Your task to perform on an android device: turn on improve location accuracy Image 0: 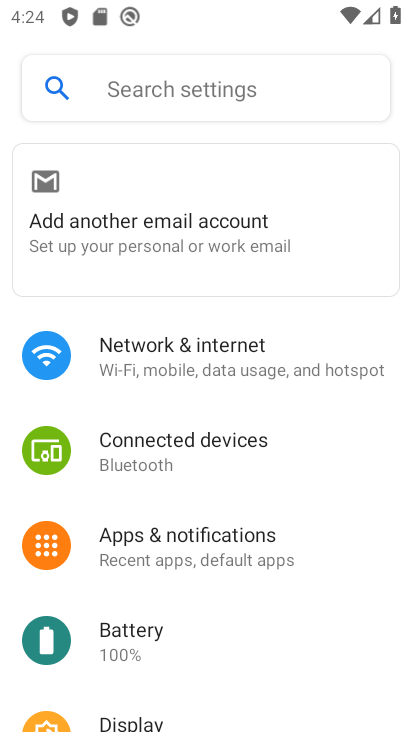
Step 0: drag from (296, 475) to (271, 148)
Your task to perform on an android device: turn on improve location accuracy Image 1: 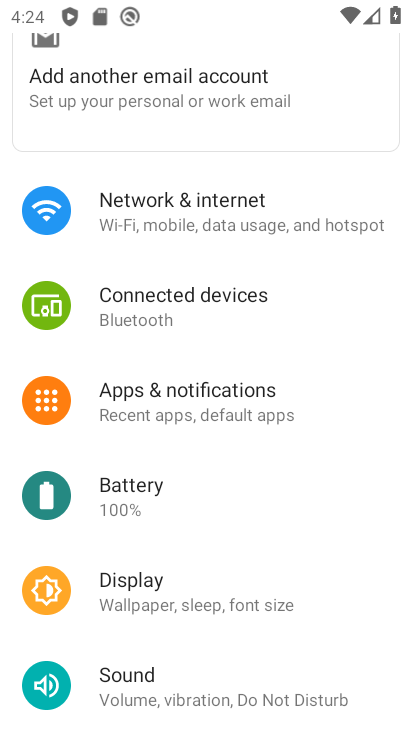
Step 1: drag from (287, 448) to (330, 167)
Your task to perform on an android device: turn on improve location accuracy Image 2: 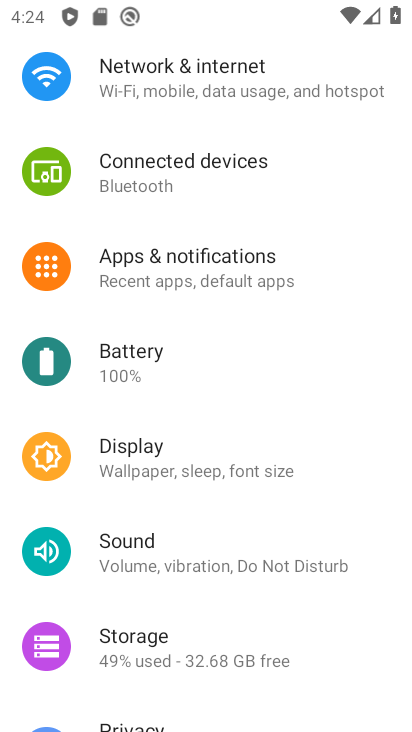
Step 2: drag from (237, 593) to (307, 284)
Your task to perform on an android device: turn on improve location accuracy Image 3: 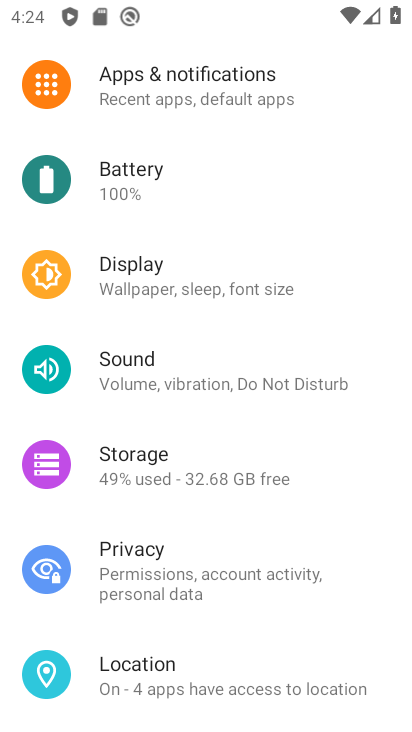
Step 3: drag from (260, 491) to (280, 262)
Your task to perform on an android device: turn on improve location accuracy Image 4: 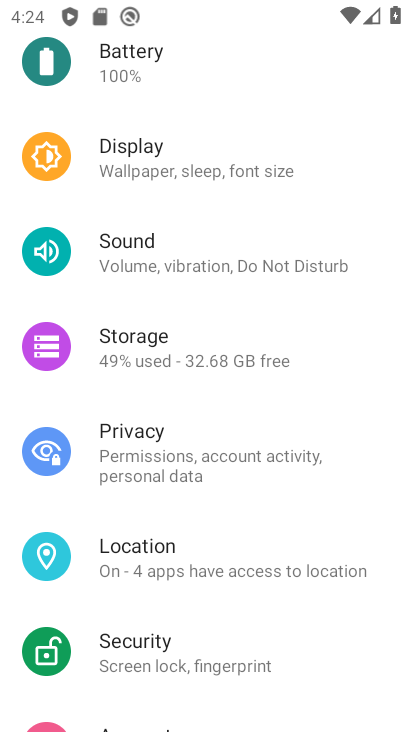
Step 4: drag from (190, 213) to (179, 572)
Your task to perform on an android device: turn on improve location accuracy Image 5: 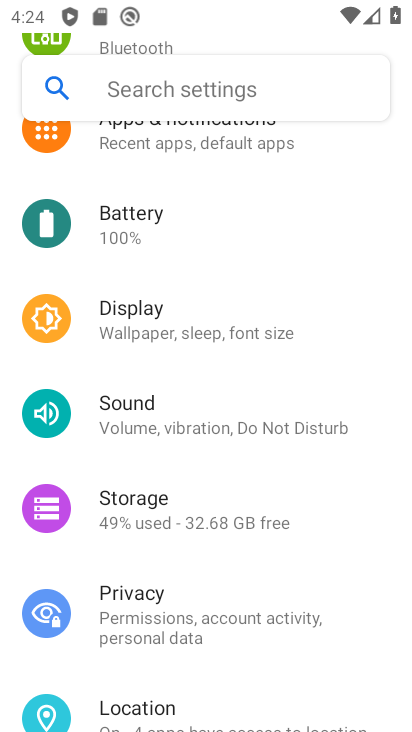
Step 5: drag from (245, 447) to (299, 148)
Your task to perform on an android device: turn on improve location accuracy Image 6: 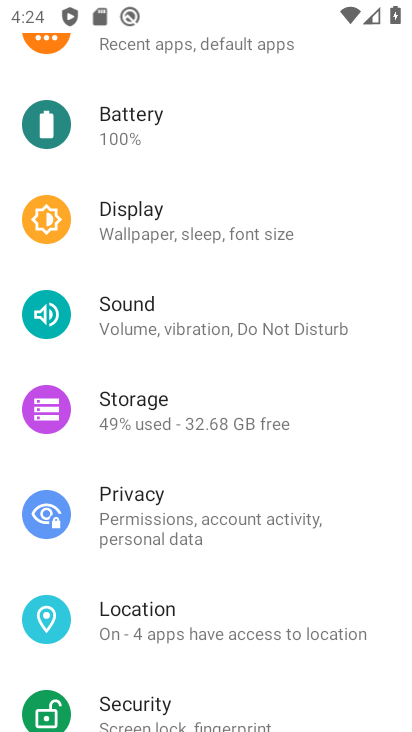
Step 6: click (206, 614)
Your task to perform on an android device: turn on improve location accuracy Image 7: 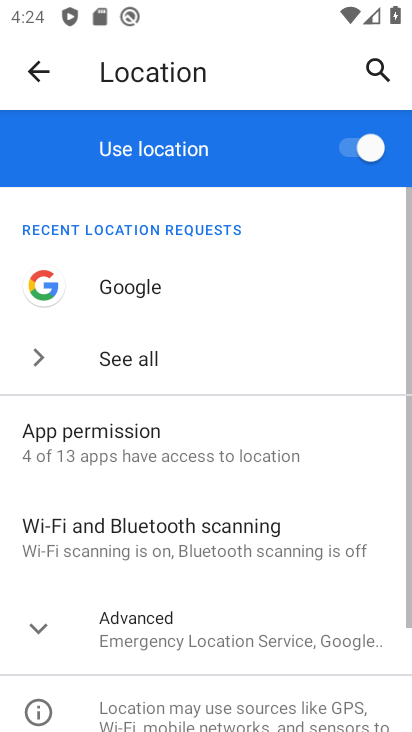
Step 7: drag from (288, 533) to (285, 374)
Your task to perform on an android device: turn on improve location accuracy Image 8: 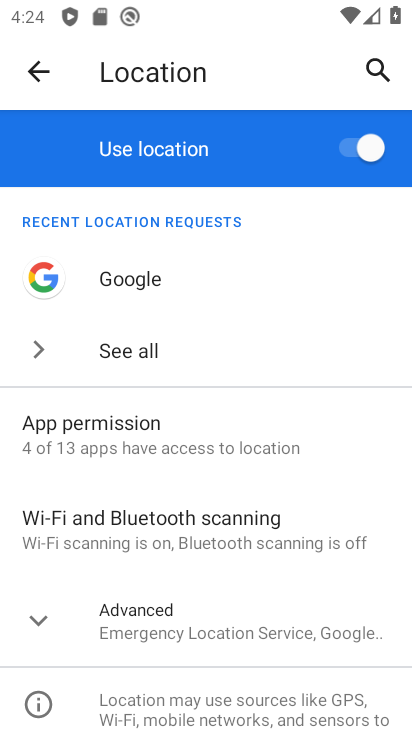
Step 8: drag from (274, 584) to (277, 330)
Your task to perform on an android device: turn on improve location accuracy Image 9: 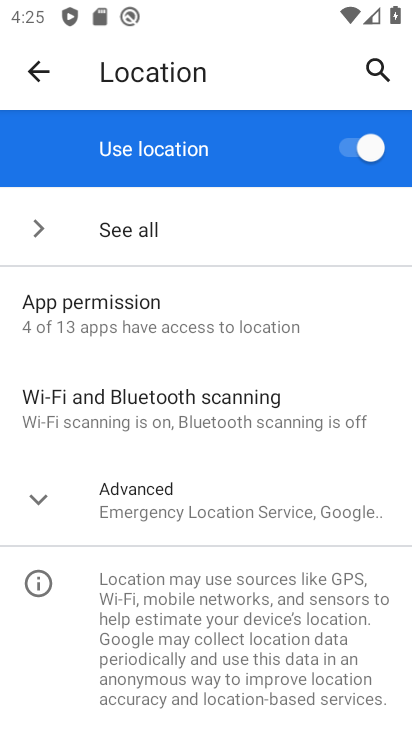
Step 9: click (194, 499)
Your task to perform on an android device: turn on improve location accuracy Image 10: 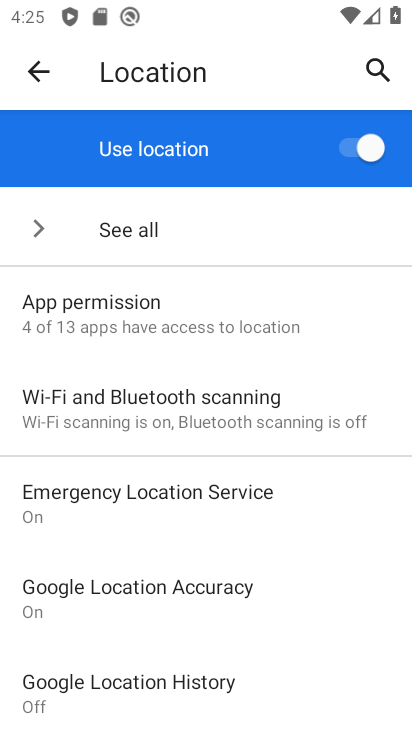
Step 10: drag from (166, 671) to (218, 430)
Your task to perform on an android device: turn on improve location accuracy Image 11: 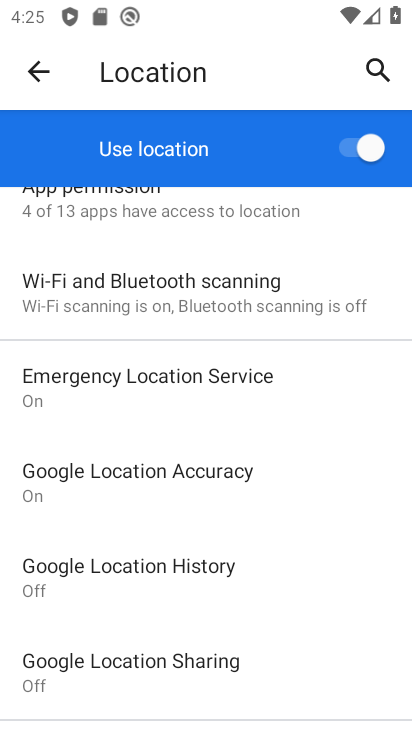
Step 11: click (206, 474)
Your task to perform on an android device: turn on improve location accuracy Image 12: 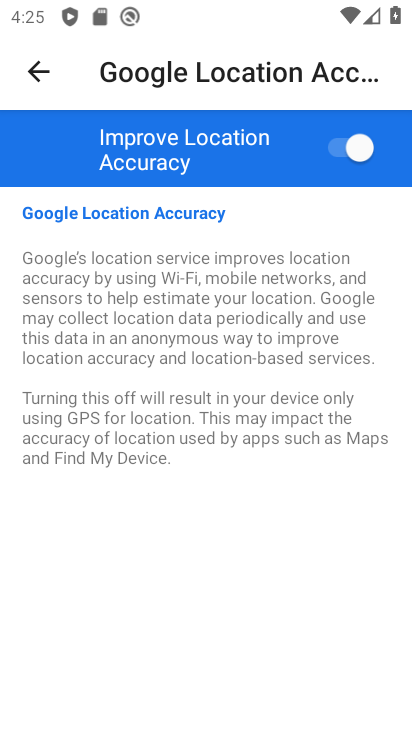
Step 12: task complete